Your task to perform on an android device: set an alarm Image 0: 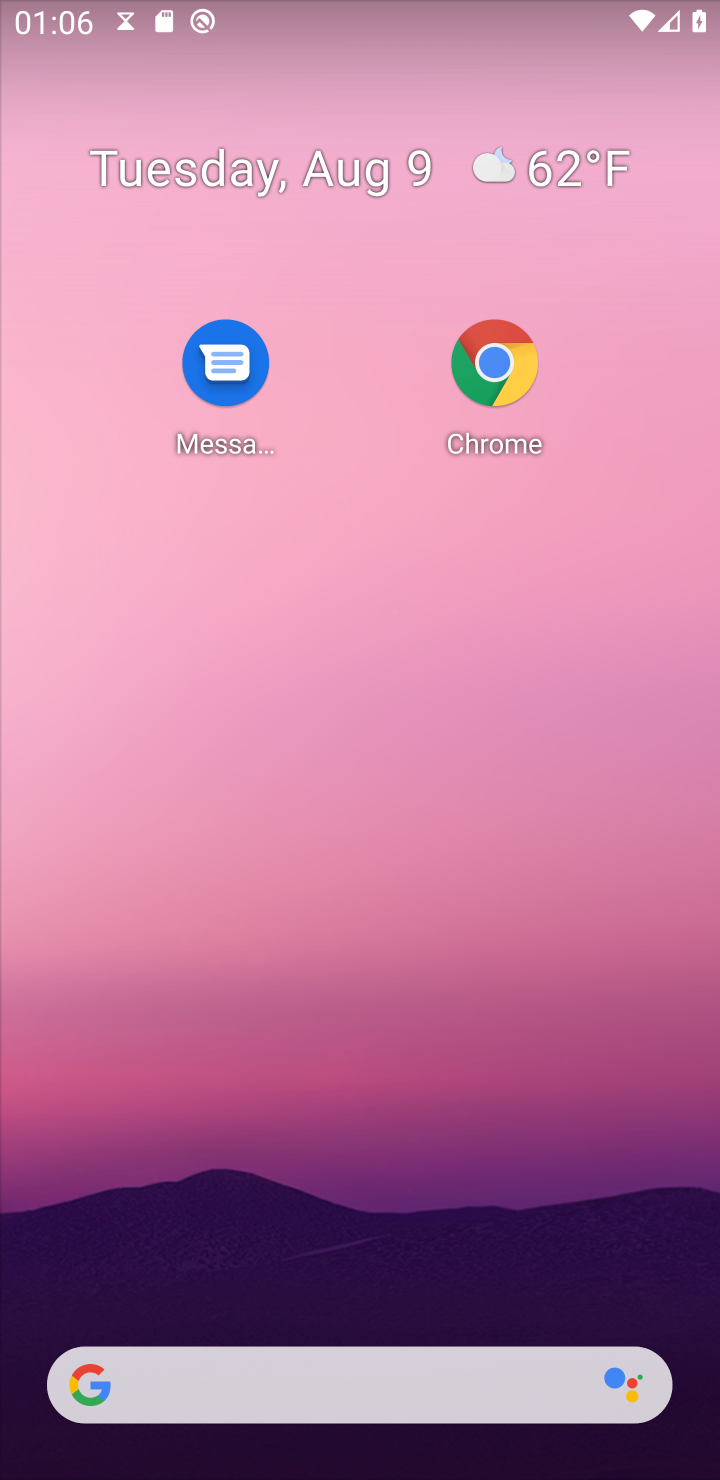
Step 0: drag from (369, 1363) to (542, 522)
Your task to perform on an android device: set an alarm Image 1: 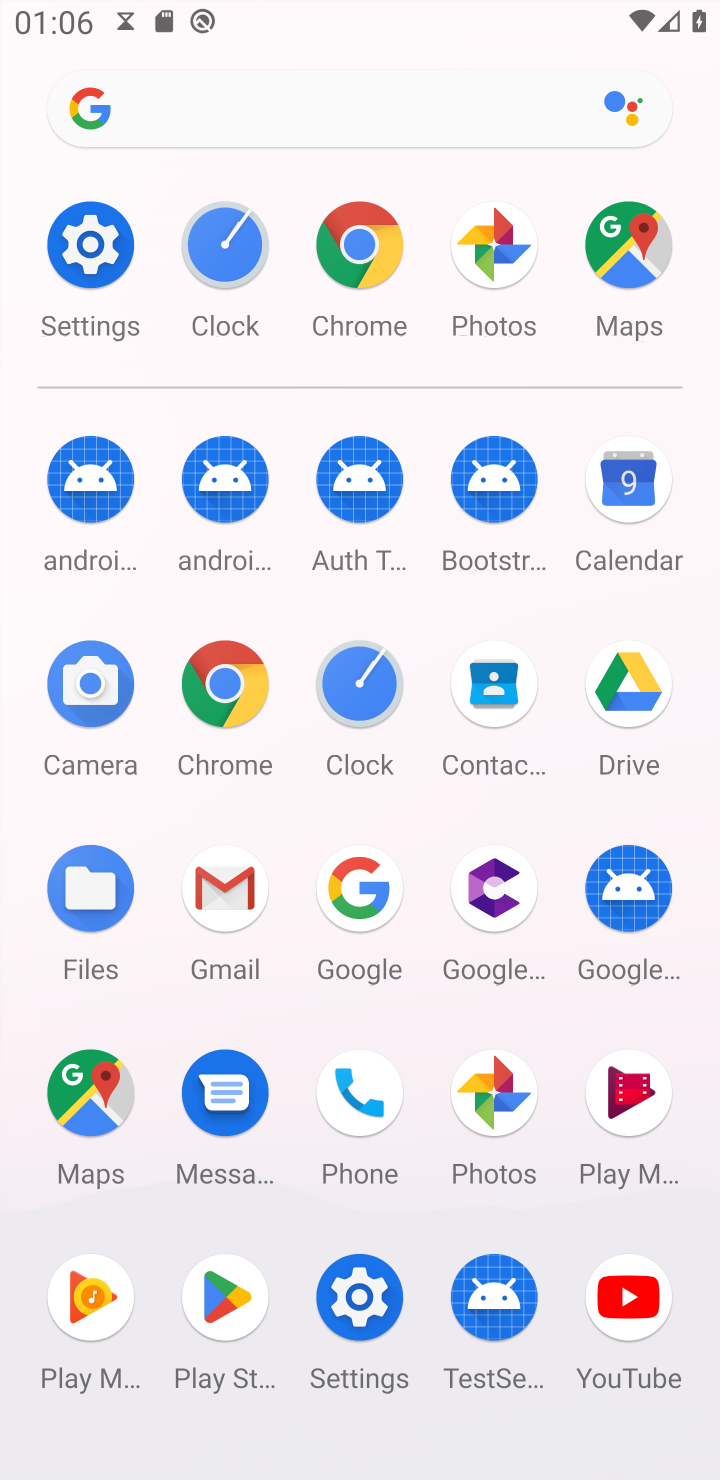
Step 1: click (369, 675)
Your task to perform on an android device: set an alarm Image 2: 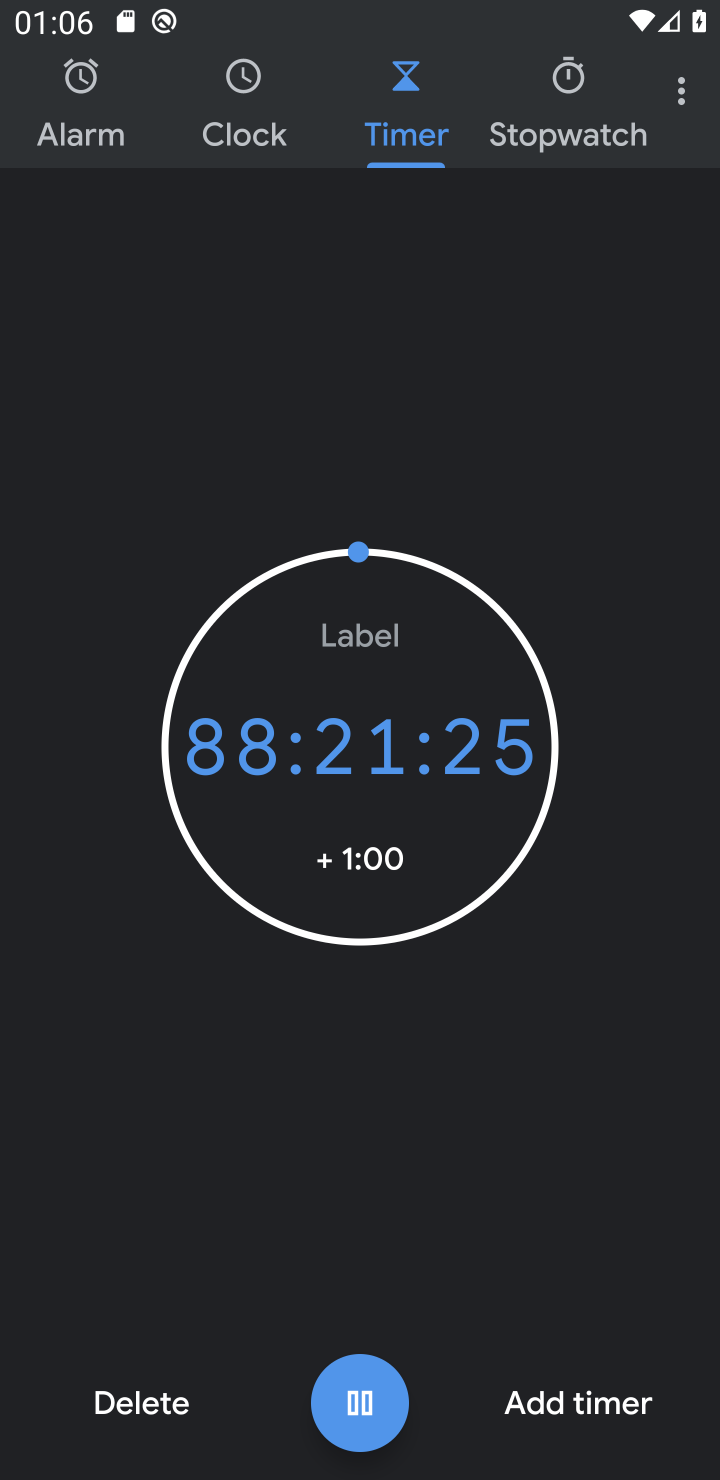
Step 2: click (84, 101)
Your task to perform on an android device: set an alarm Image 3: 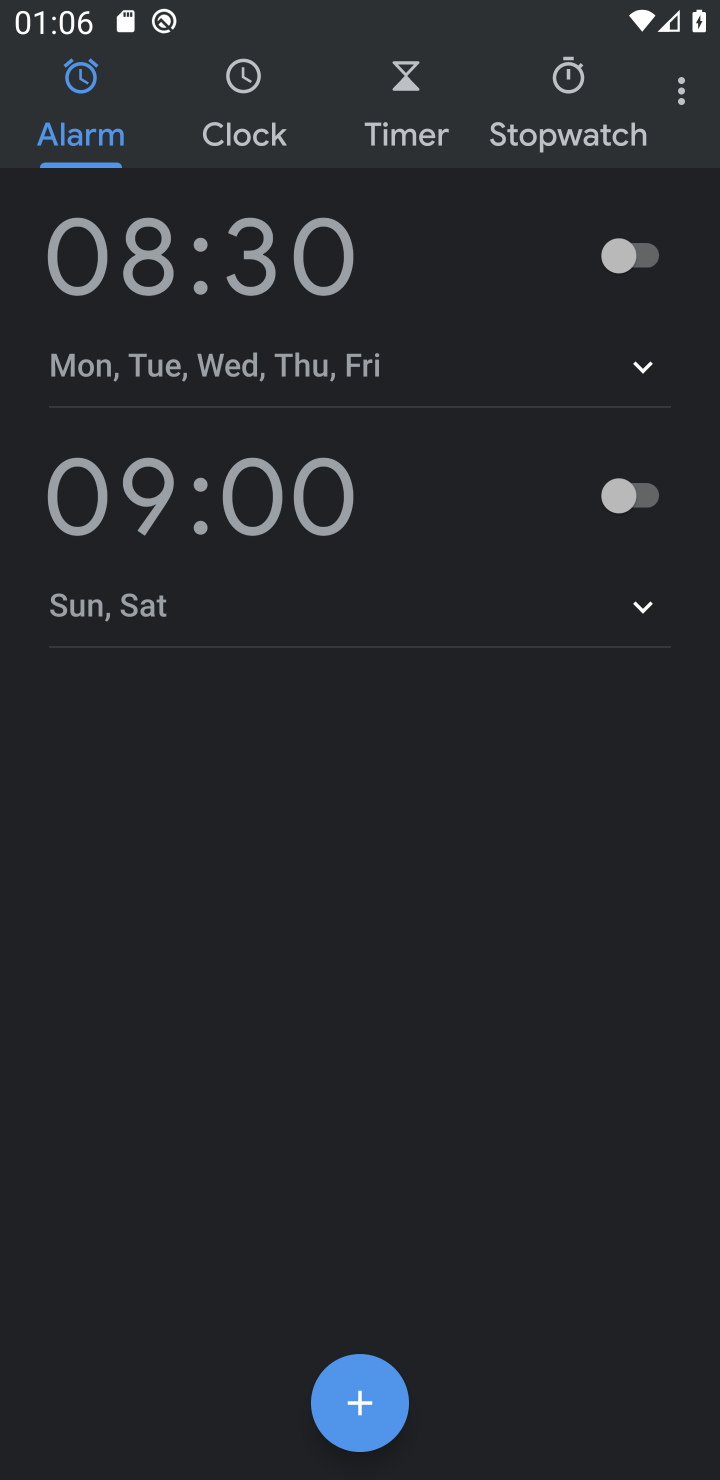
Step 3: click (647, 265)
Your task to perform on an android device: set an alarm Image 4: 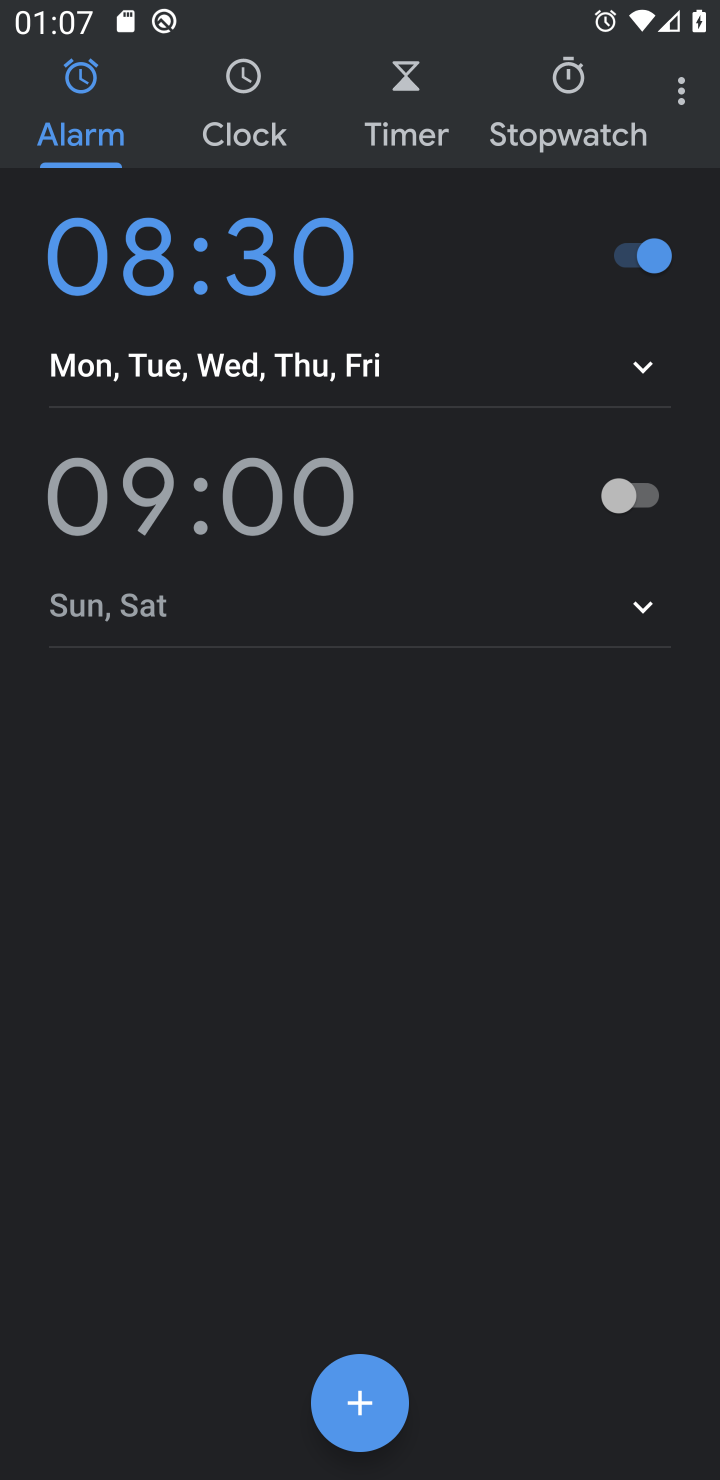
Step 4: task complete